Your task to perform on an android device: toggle wifi Image 0: 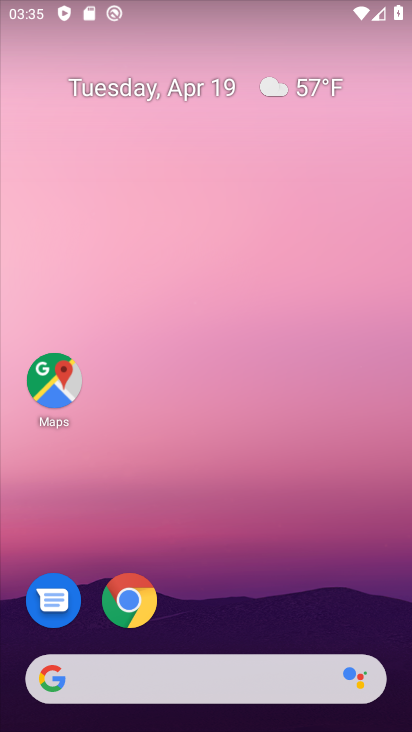
Step 0: drag from (309, 592) to (204, 175)
Your task to perform on an android device: toggle wifi Image 1: 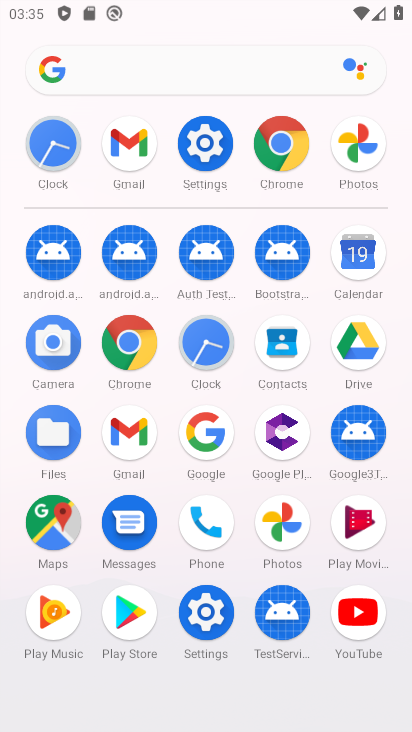
Step 1: click (205, 158)
Your task to perform on an android device: toggle wifi Image 2: 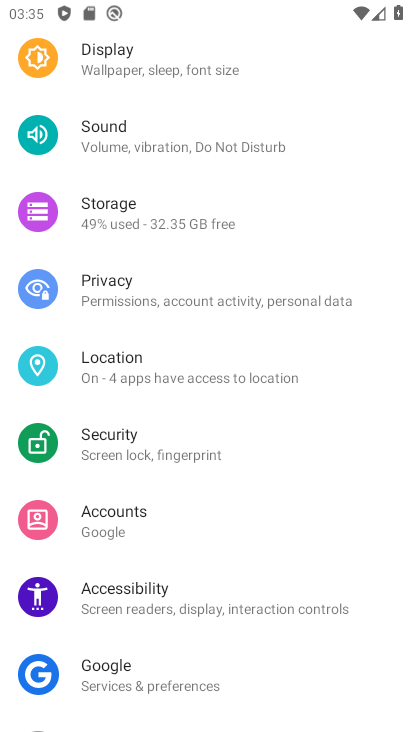
Step 2: drag from (248, 102) to (406, 447)
Your task to perform on an android device: toggle wifi Image 3: 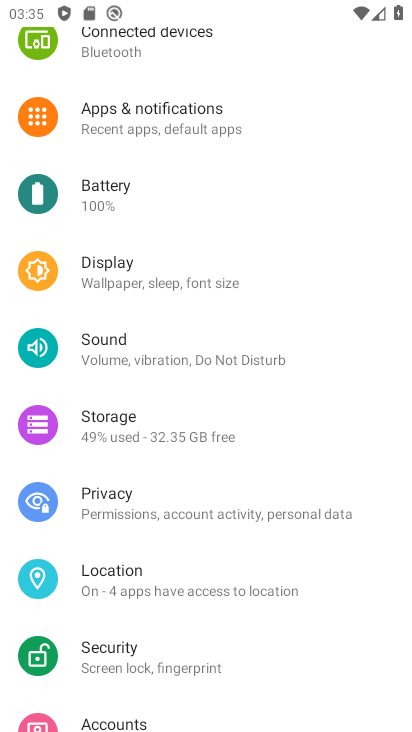
Step 3: click (306, 259)
Your task to perform on an android device: toggle wifi Image 4: 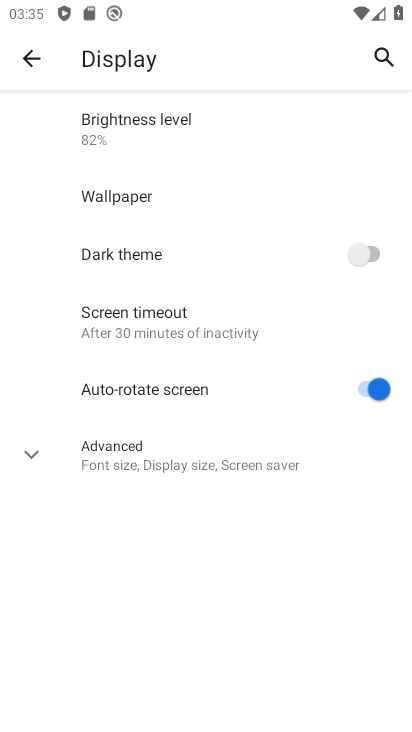
Step 4: press back button
Your task to perform on an android device: toggle wifi Image 5: 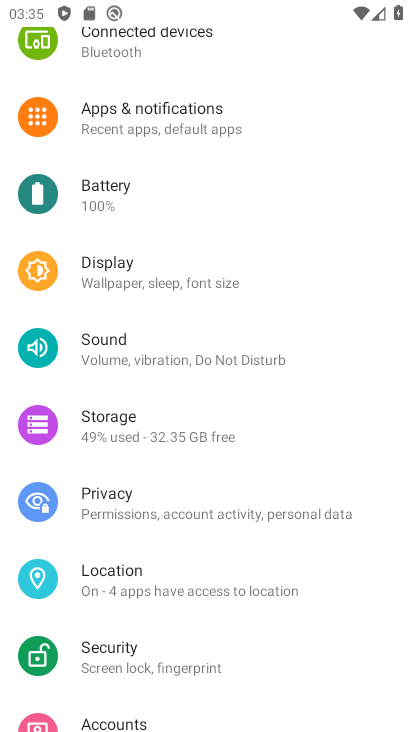
Step 5: drag from (232, 79) to (388, 624)
Your task to perform on an android device: toggle wifi Image 6: 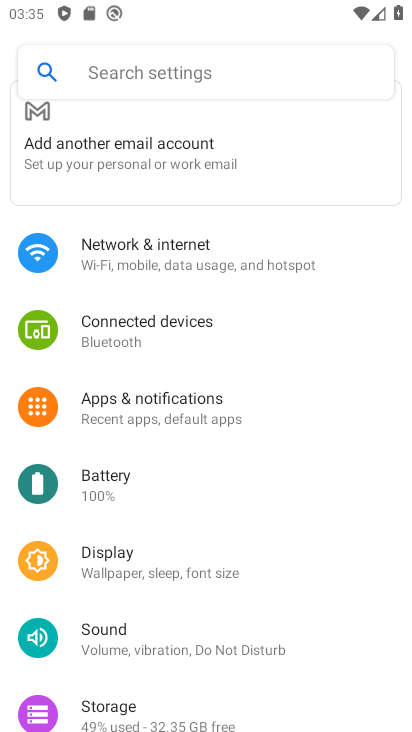
Step 6: click (332, 250)
Your task to perform on an android device: toggle wifi Image 7: 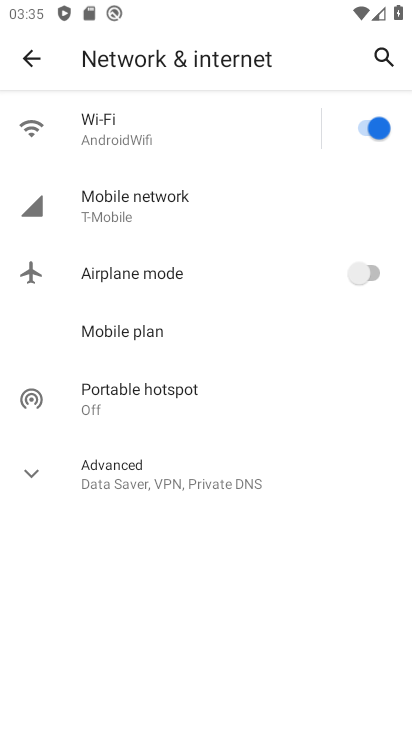
Step 7: click (369, 138)
Your task to perform on an android device: toggle wifi Image 8: 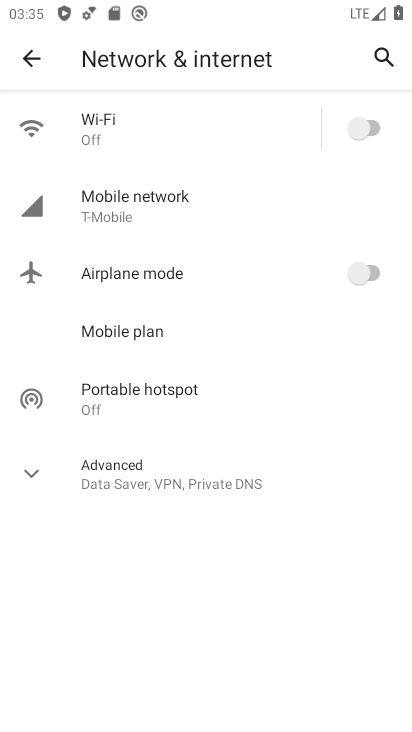
Step 8: task complete